Your task to perform on an android device: refresh tabs in the chrome app Image 0: 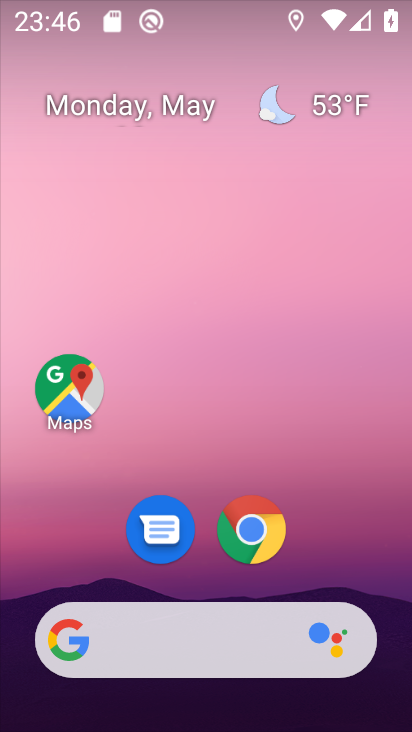
Step 0: click (259, 519)
Your task to perform on an android device: refresh tabs in the chrome app Image 1: 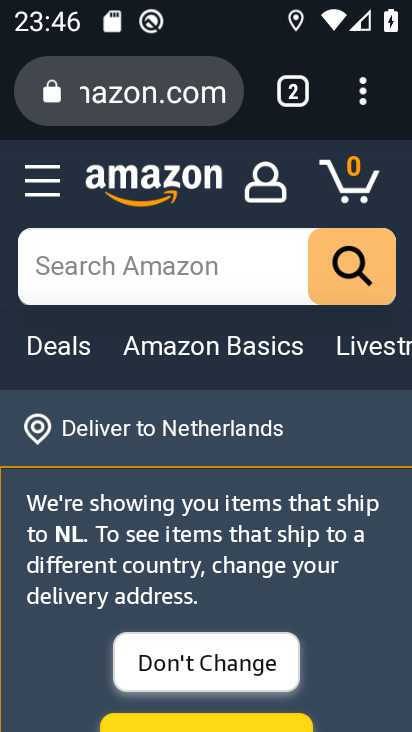
Step 1: click (368, 93)
Your task to perform on an android device: refresh tabs in the chrome app Image 2: 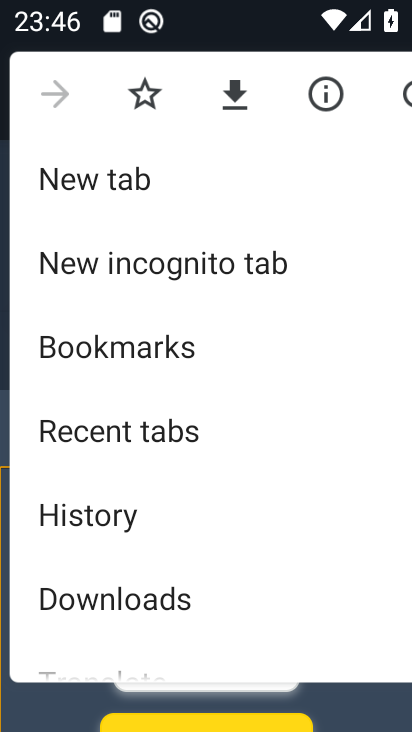
Step 2: click (407, 96)
Your task to perform on an android device: refresh tabs in the chrome app Image 3: 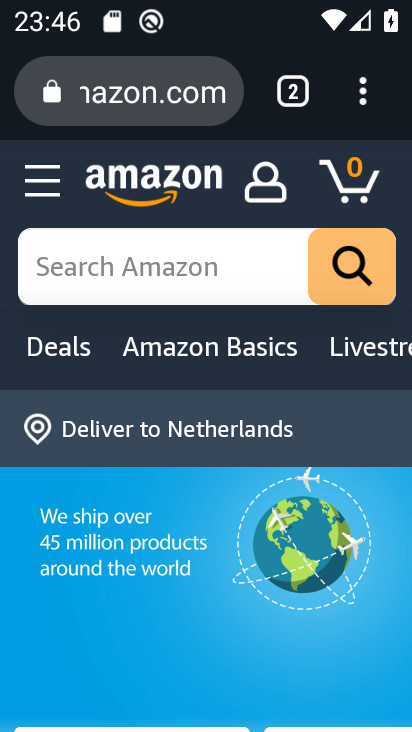
Step 3: task complete